Your task to perform on an android device: Open battery settings Image 0: 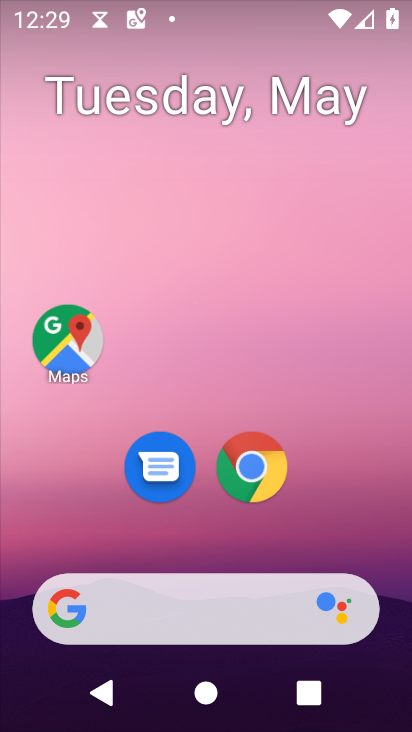
Step 0: drag from (264, 538) to (287, 48)
Your task to perform on an android device: Open battery settings Image 1: 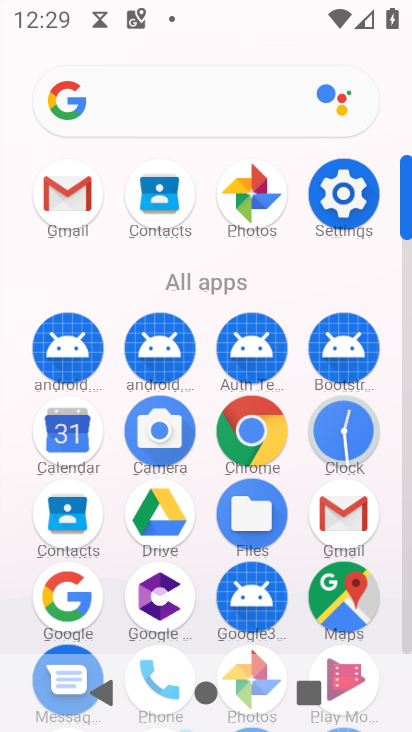
Step 1: click (338, 204)
Your task to perform on an android device: Open battery settings Image 2: 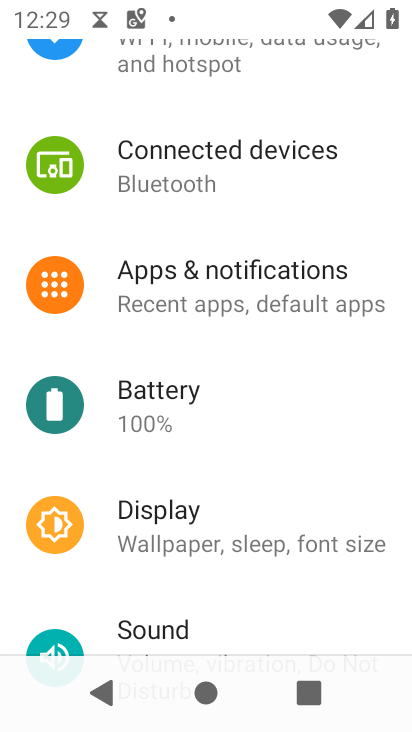
Step 2: click (196, 410)
Your task to perform on an android device: Open battery settings Image 3: 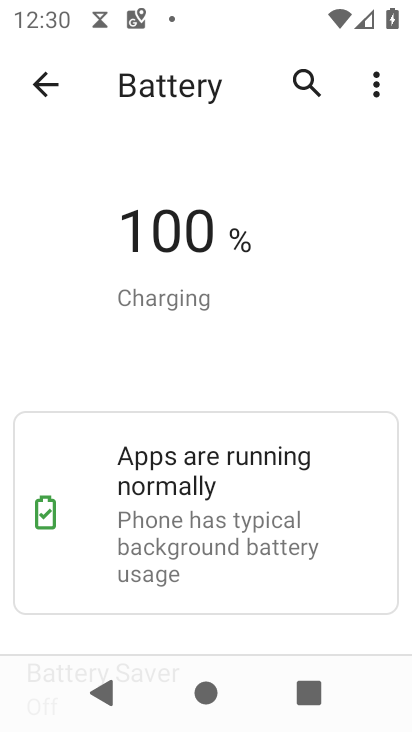
Step 3: task complete